Your task to perform on an android device: Open calendar and show me the fourth week of next month Image 0: 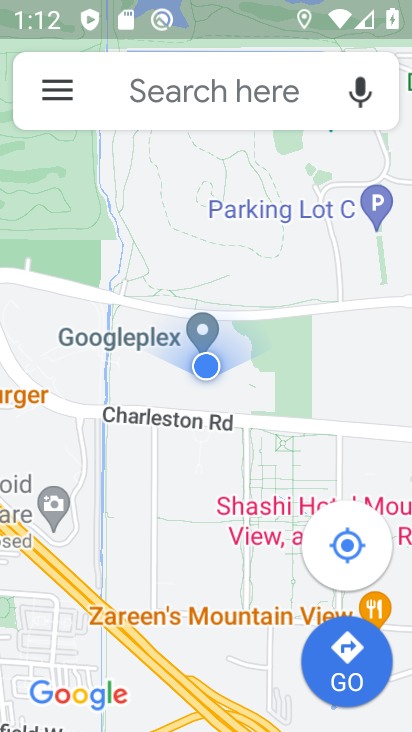
Step 0: press home button
Your task to perform on an android device: Open calendar and show me the fourth week of next month Image 1: 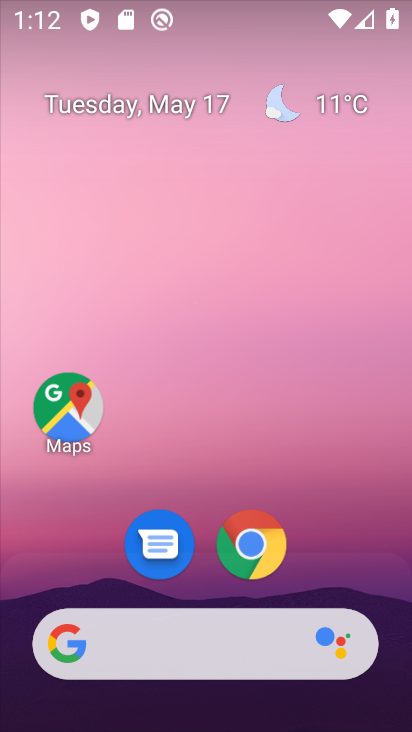
Step 1: drag from (351, 454) to (333, 220)
Your task to perform on an android device: Open calendar and show me the fourth week of next month Image 2: 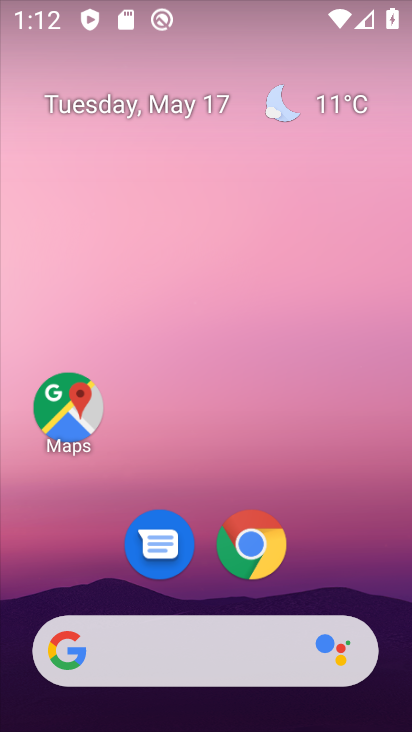
Step 2: drag from (363, 563) to (337, 72)
Your task to perform on an android device: Open calendar and show me the fourth week of next month Image 3: 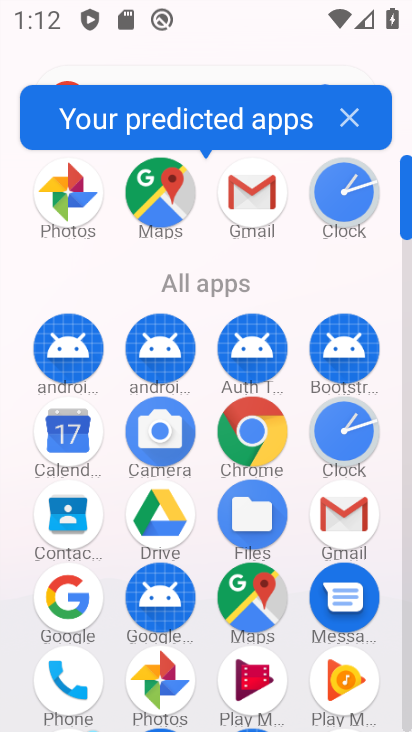
Step 3: click (72, 460)
Your task to perform on an android device: Open calendar and show me the fourth week of next month Image 4: 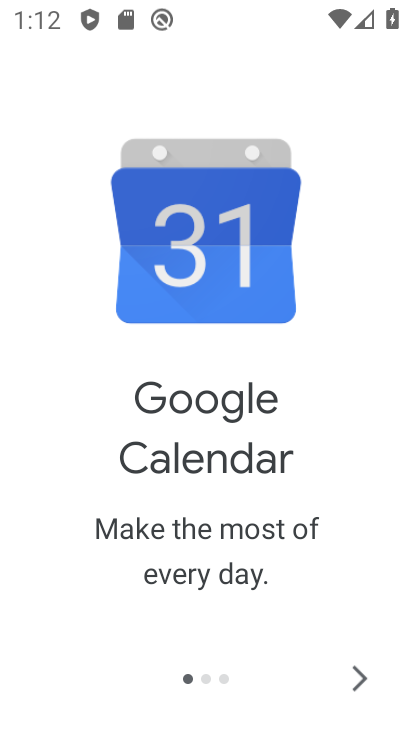
Step 4: click (365, 685)
Your task to perform on an android device: Open calendar and show me the fourth week of next month Image 5: 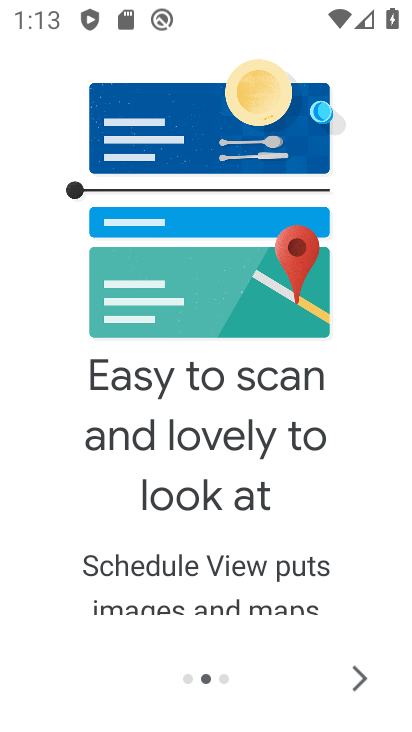
Step 5: click (375, 667)
Your task to perform on an android device: Open calendar and show me the fourth week of next month Image 6: 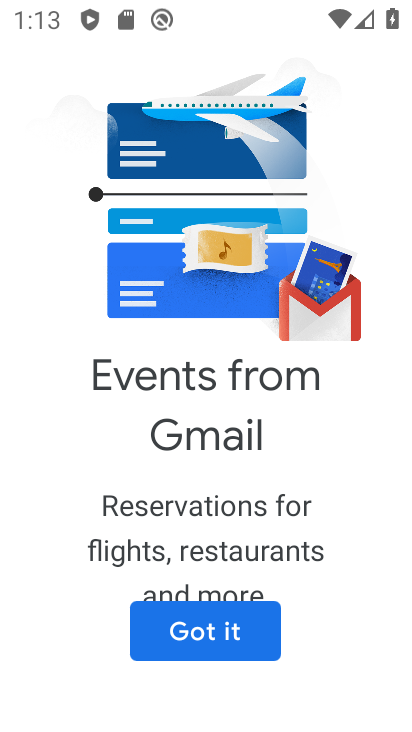
Step 6: click (182, 649)
Your task to perform on an android device: Open calendar and show me the fourth week of next month Image 7: 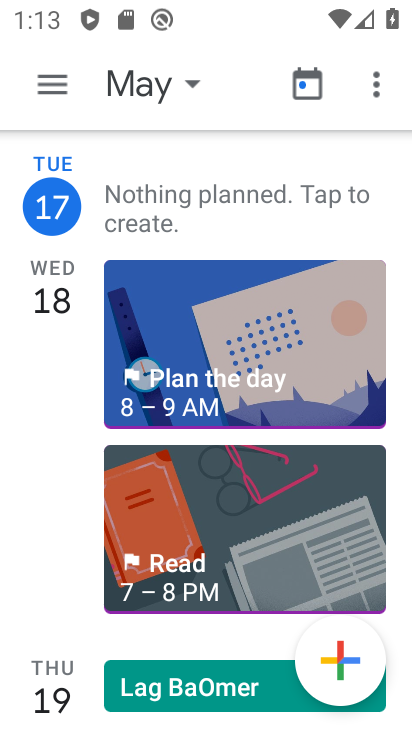
Step 7: click (198, 77)
Your task to perform on an android device: Open calendar and show me the fourth week of next month Image 8: 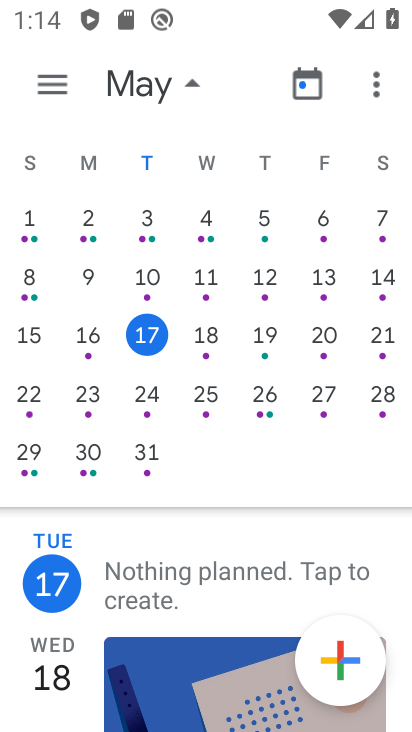
Step 8: drag from (359, 334) to (10, 342)
Your task to perform on an android device: Open calendar and show me the fourth week of next month Image 9: 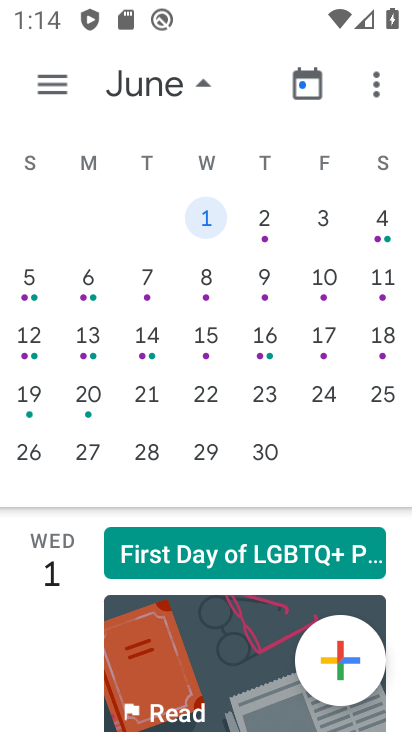
Step 9: click (210, 391)
Your task to perform on an android device: Open calendar and show me the fourth week of next month Image 10: 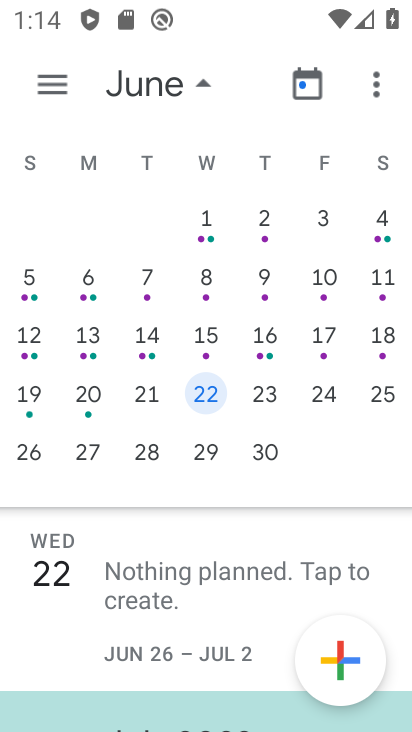
Step 10: task complete